Your task to perform on an android device: Open the calendar app, open the side menu, and click the "Day" option Image 0: 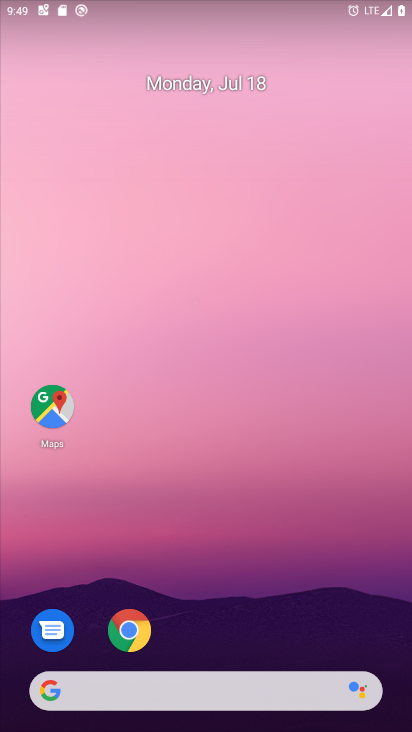
Step 0: drag from (201, 641) to (191, 191)
Your task to perform on an android device: Open the calendar app, open the side menu, and click the "Day" option Image 1: 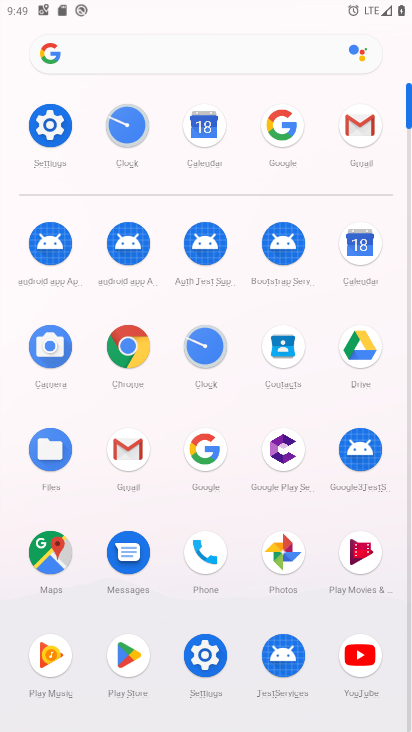
Step 1: click (199, 123)
Your task to perform on an android device: Open the calendar app, open the side menu, and click the "Day" option Image 2: 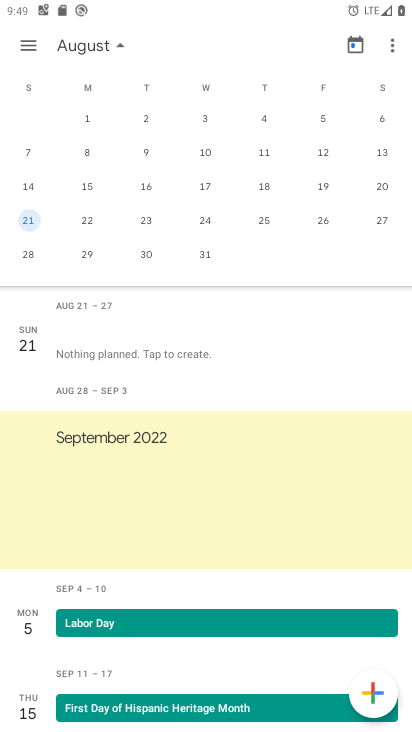
Step 2: click (27, 50)
Your task to perform on an android device: Open the calendar app, open the side menu, and click the "Day" option Image 3: 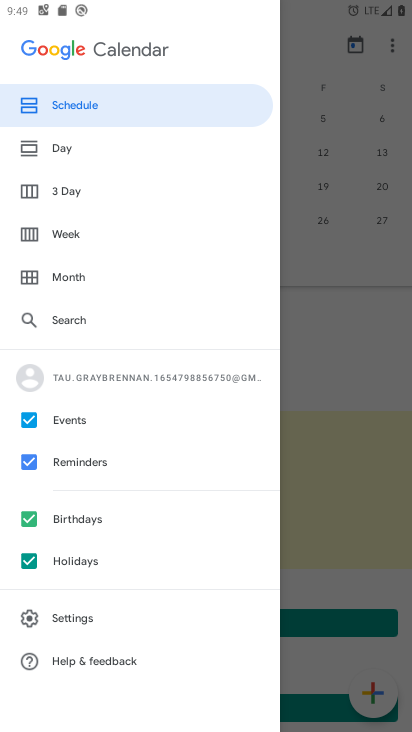
Step 3: click (72, 144)
Your task to perform on an android device: Open the calendar app, open the side menu, and click the "Day" option Image 4: 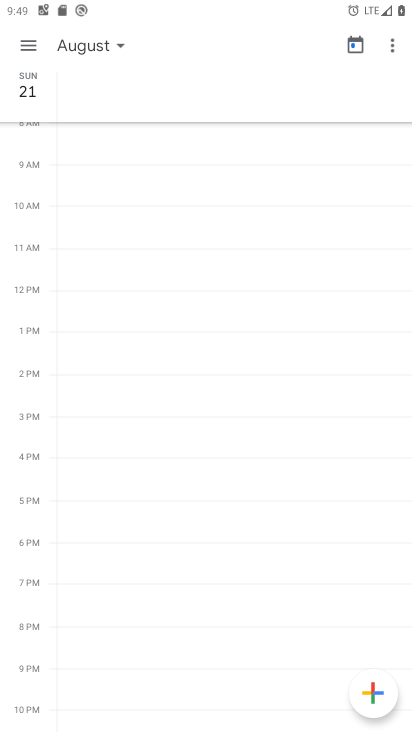
Step 4: task complete